Your task to perform on an android device: toggle notification dots Image 0: 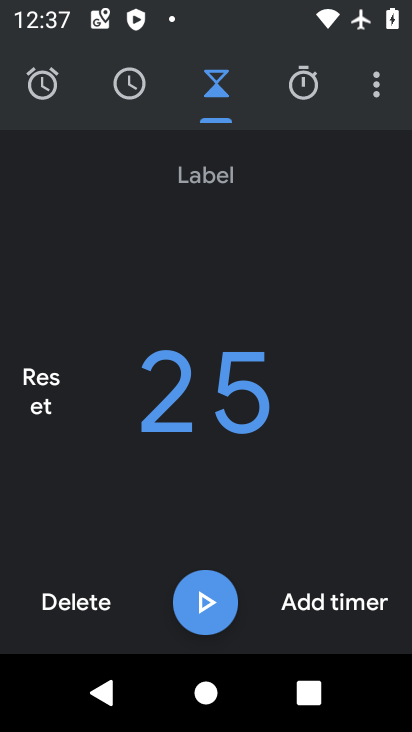
Step 0: press home button
Your task to perform on an android device: toggle notification dots Image 1: 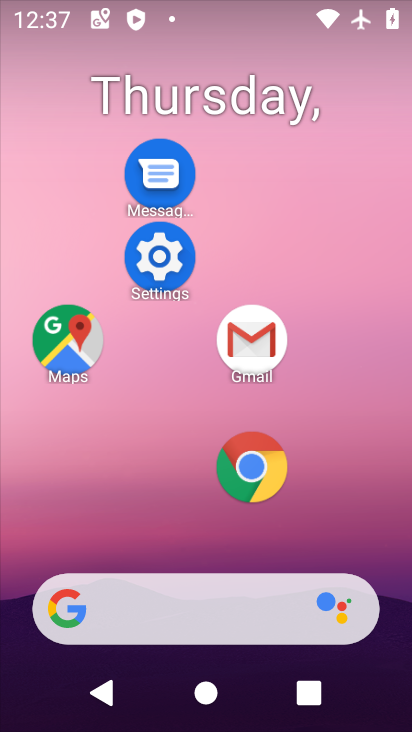
Step 1: click (160, 270)
Your task to perform on an android device: toggle notification dots Image 2: 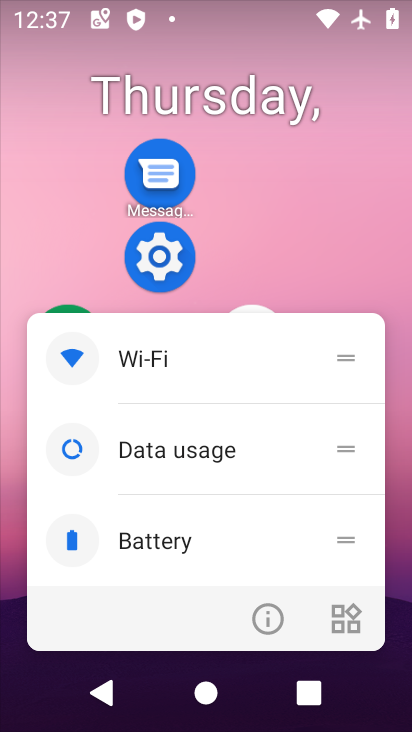
Step 2: click (260, 614)
Your task to perform on an android device: toggle notification dots Image 3: 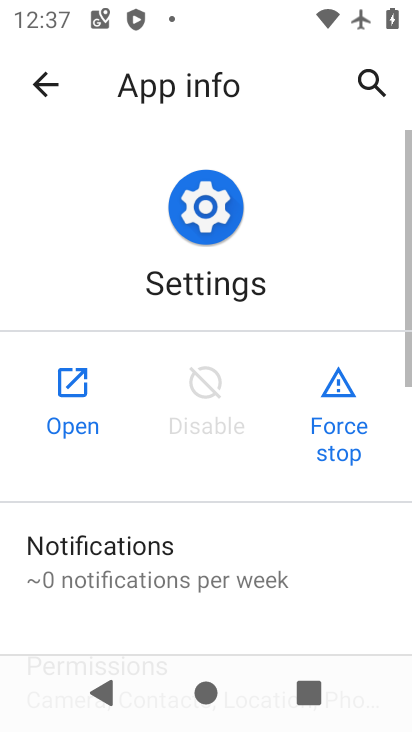
Step 3: click (83, 400)
Your task to perform on an android device: toggle notification dots Image 4: 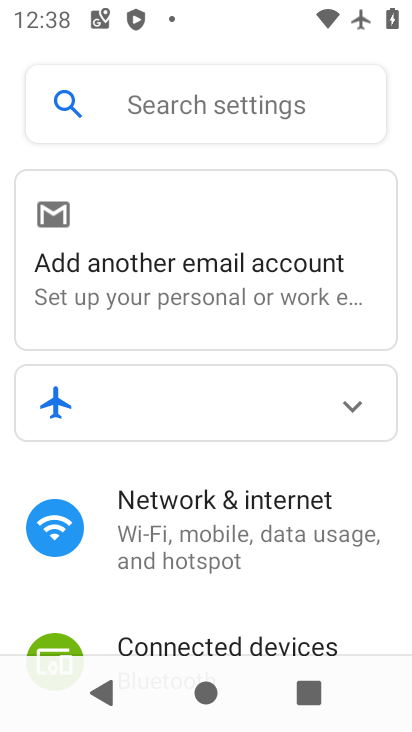
Step 4: drag from (229, 584) to (320, 133)
Your task to perform on an android device: toggle notification dots Image 5: 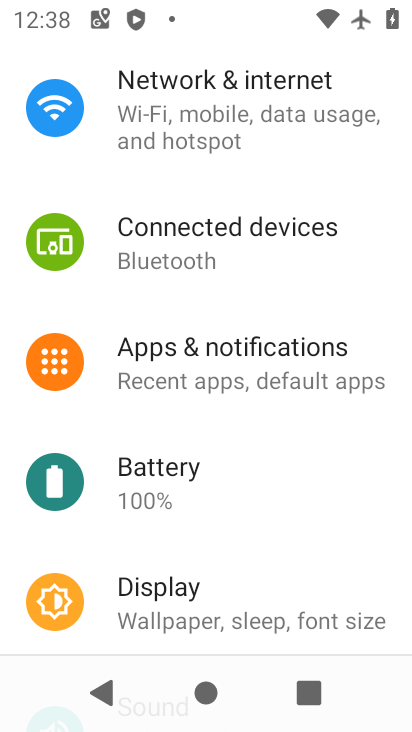
Step 5: click (225, 364)
Your task to perform on an android device: toggle notification dots Image 6: 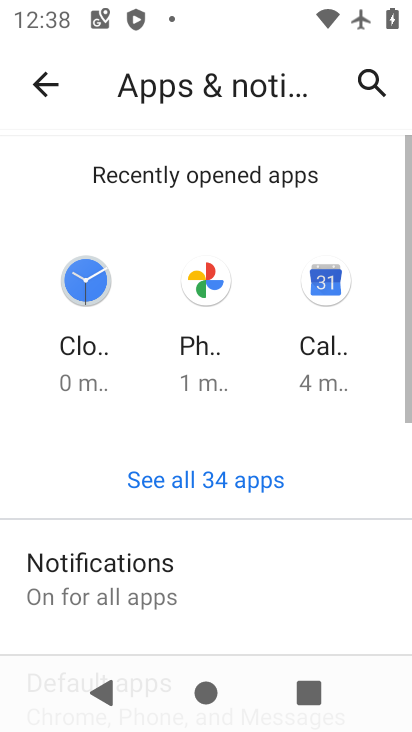
Step 6: click (143, 564)
Your task to perform on an android device: toggle notification dots Image 7: 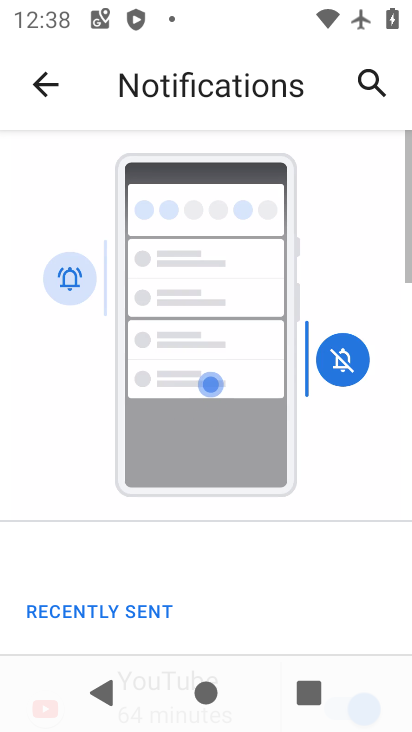
Step 7: drag from (168, 538) to (286, 162)
Your task to perform on an android device: toggle notification dots Image 8: 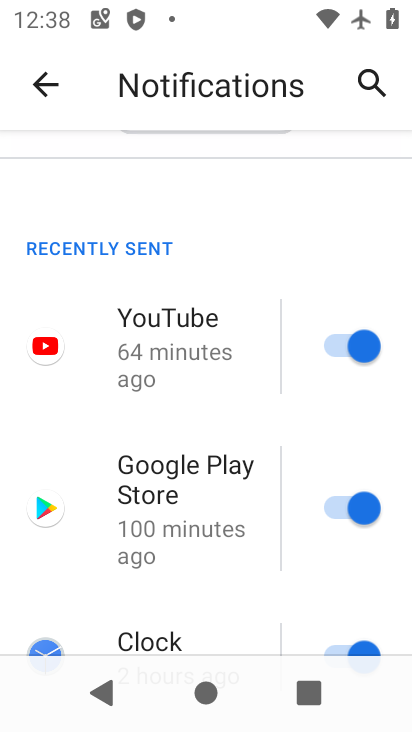
Step 8: drag from (279, 456) to (312, 66)
Your task to perform on an android device: toggle notification dots Image 9: 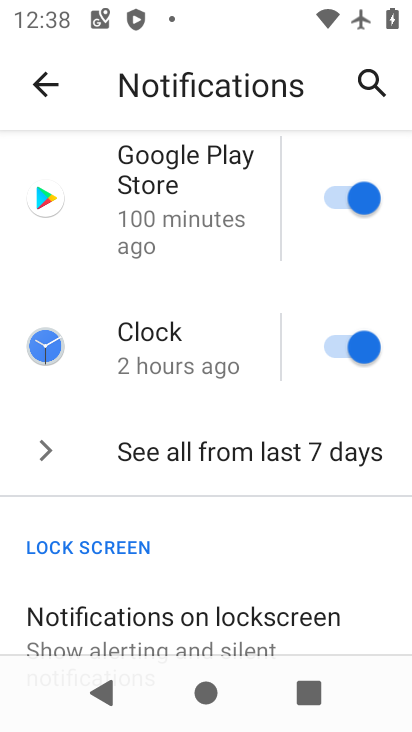
Step 9: drag from (176, 590) to (239, 103)
Your task to perform on an android device: toggle notification dots Image 10: 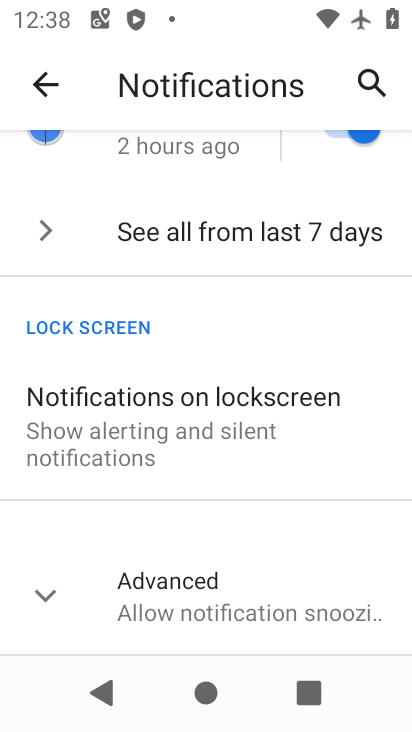
Step 10: click (183, 596)
Your task to perform on an android device: toggle notification dots Image 11: 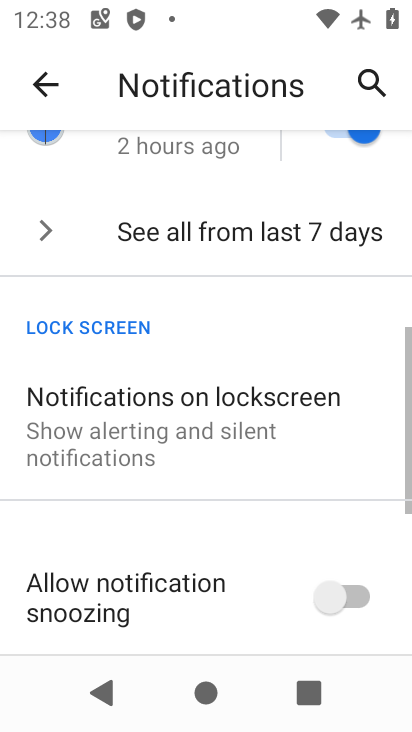
Step 11: drag from (156, 531) to (257, 101)
Your task to perform on an android device: toggle notification dots Image 12: 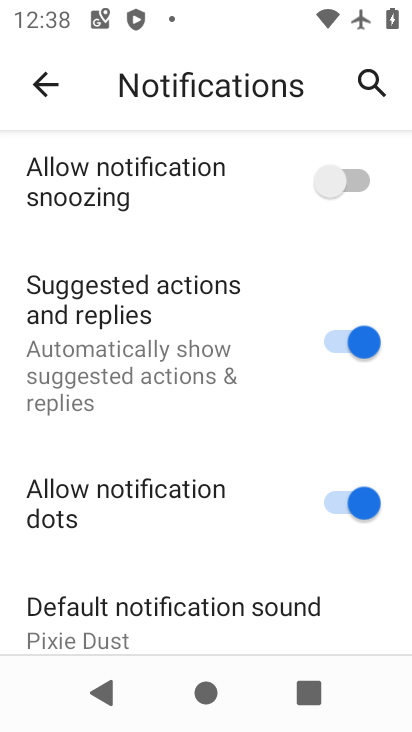
Step 12: drag from (255, 598) to (255, 384)
Your task to perform on an android device: toggle notification dots Image 13: 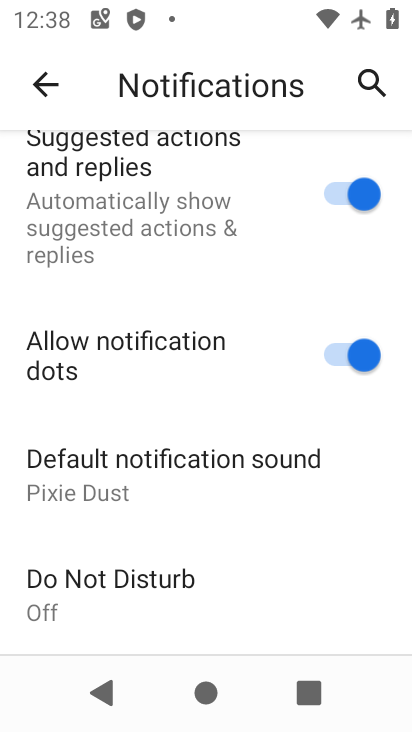
Step 13: click (278, 338)
Your task to perform on an android device: toggle notification dots Image 14: 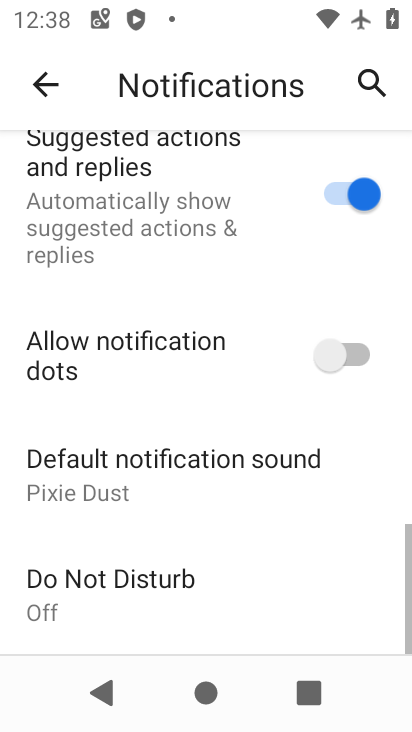
Step 14: task complete